Your task to perform on an android device: Open Google Maps Image 0: 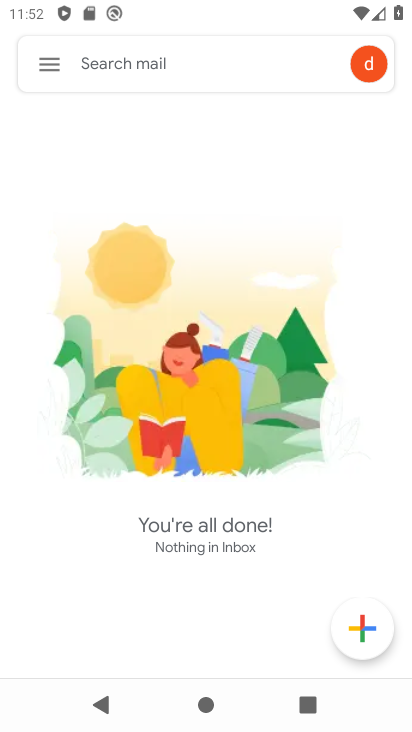
Step 0: press home button
Your task to perform on an android device: Open Google Maps Image 1: 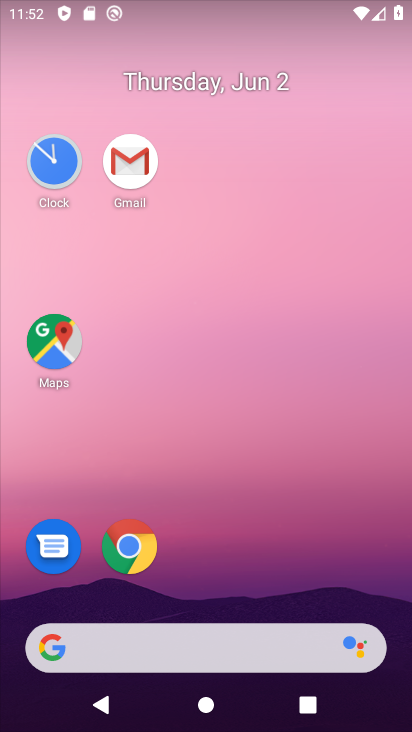
Step 1: click (76, 345)
Your task to perform on an android device: Open Google Maps Image 2: 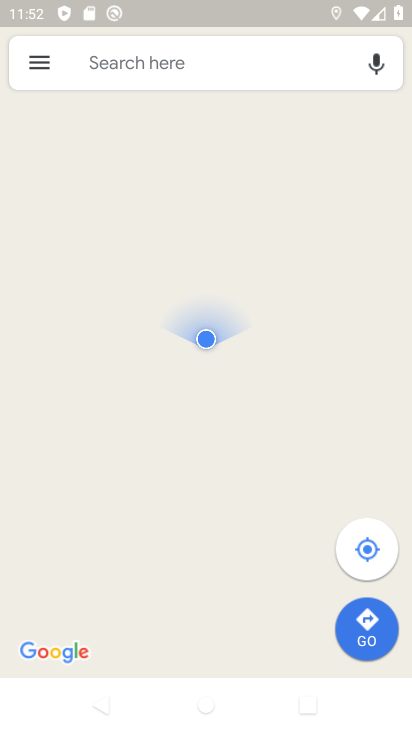
Step 2: task complete